Your task to perform on an android device: toggle translation in the chrome app Image 0: 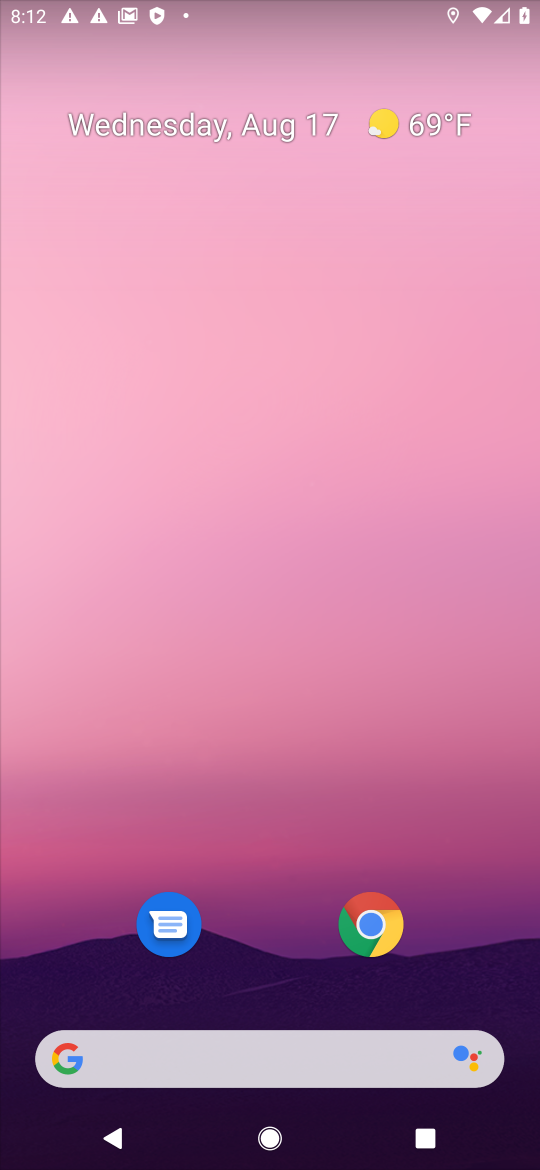
Step 0: drag from (301, 905) to (427, 26)
Your task to perform on an android device: toggle translation in the chrome app Image 1: 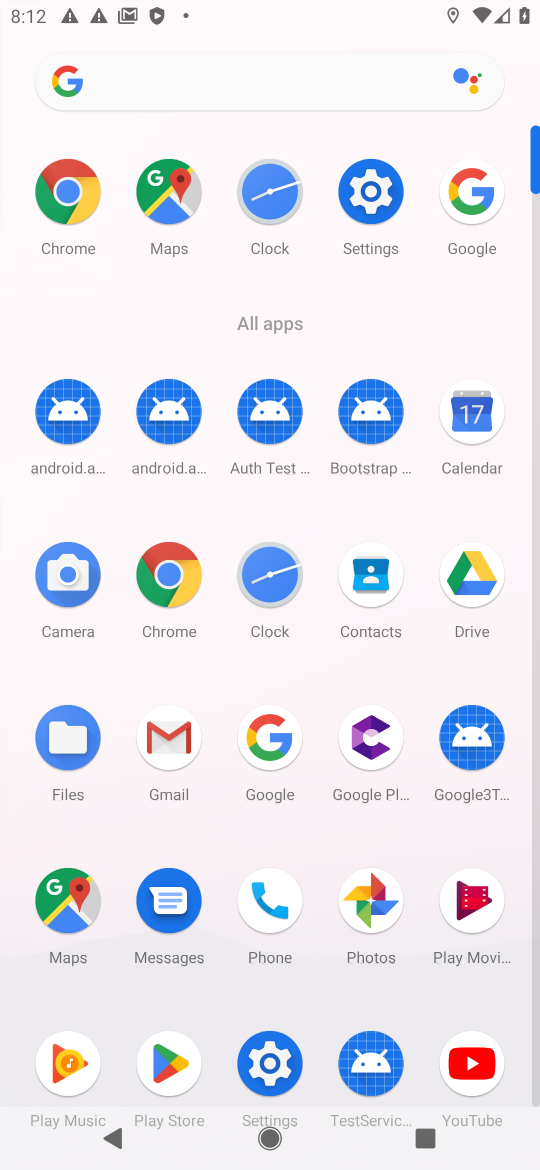
Step 1: click (164, 570)
Your task to perform on an android device: toggle translation in the chrome app Image 2: 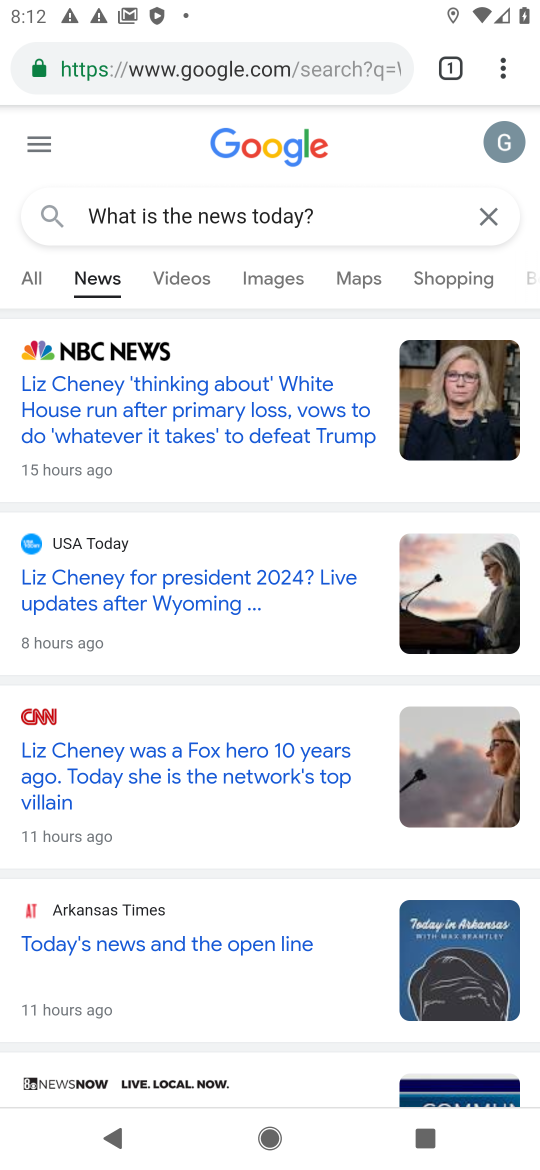
Step 2: click (496, 64)
Your task to perform on an android device: toggle translation in the chrome app Image 3: 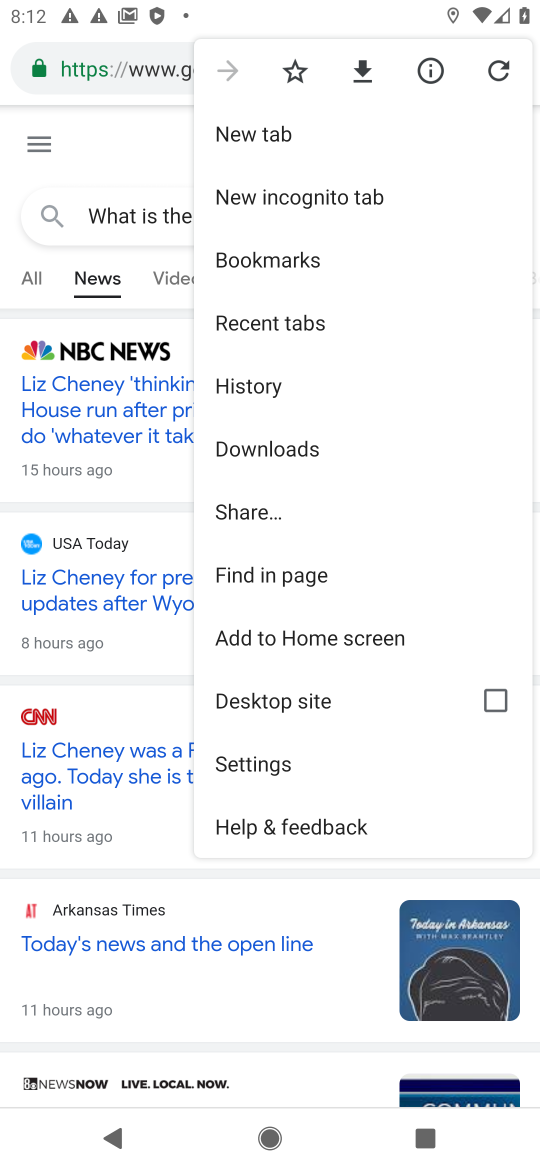
Step 3: click (296, 759)
Your task to perform on an android device: toggle translation in the chrome app Image 4: 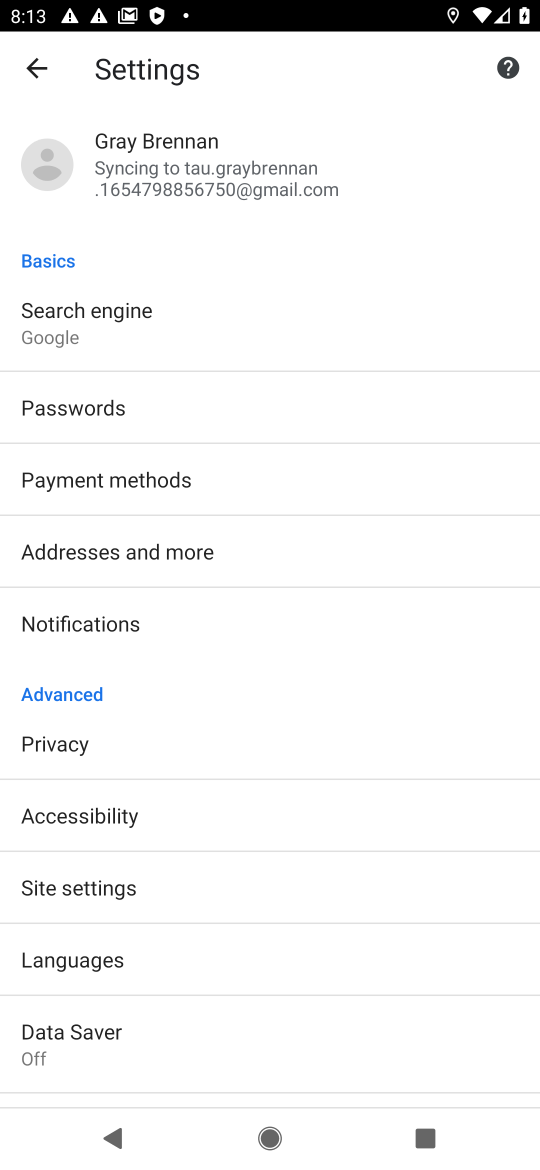
Step 4: drag from (324, 918) to (414, 323)
Your task to perform on an android device: toggle translation in the chrome app Image 5: 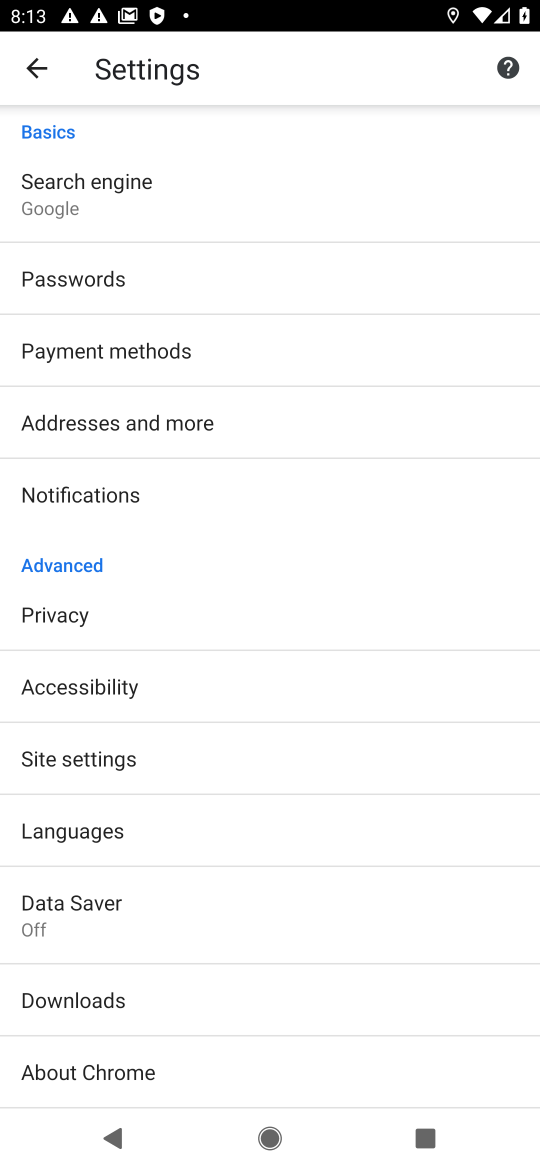
Step 5: click (114, 826)
Your task to perform on an android device: toggle translation in the chrome app Image 6: 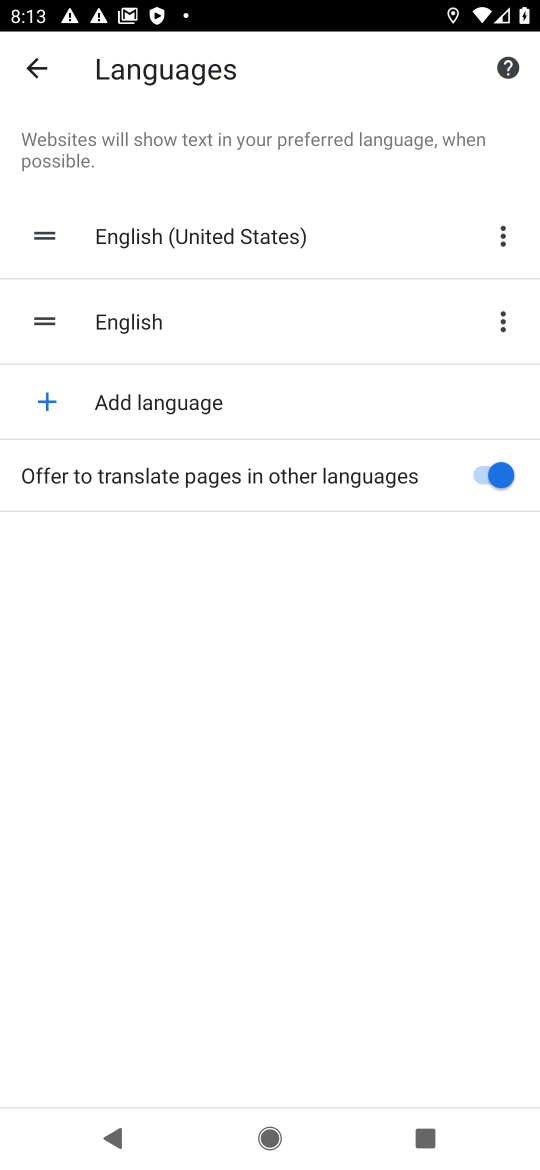
Step 6: click (437, 477)
Your task to perform on an android device: toggle translation in the chrome app Image 7: 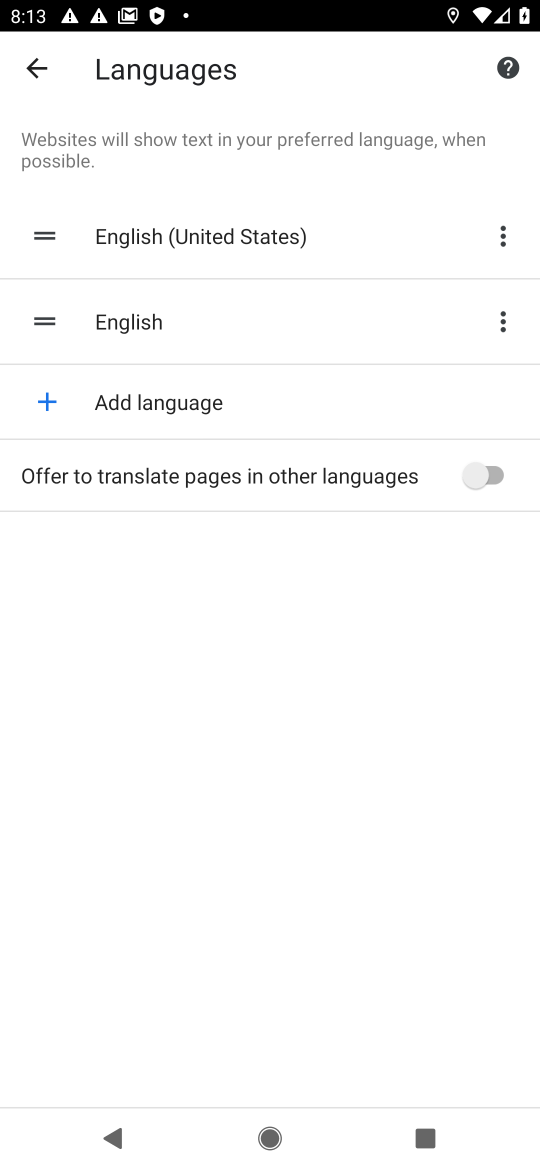
Step 7: task complete